Your task to perform on an android device: open chrome and create a bookmark for the current page Image 0: 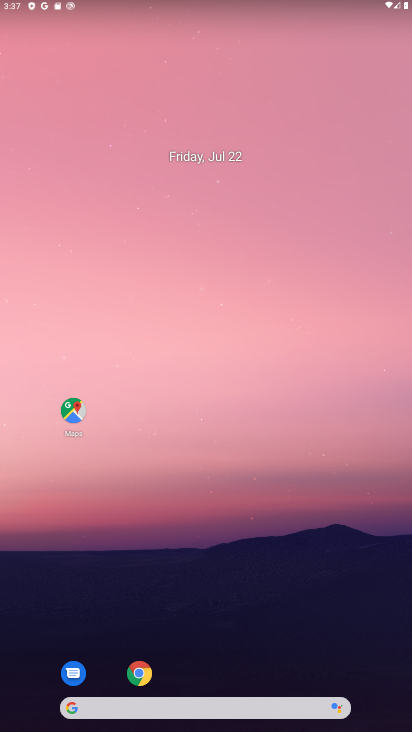
Step 0: click (139, 672)
Your task to perform on an android device: open chrome and create a bookmark for the current page Image 1: 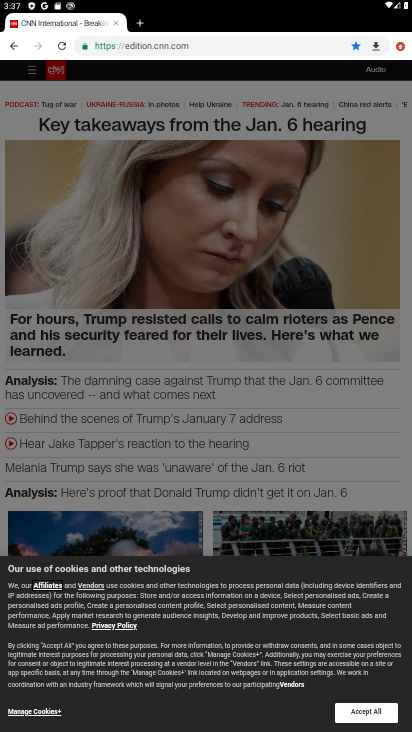
Step 1: click (403, 44)
Your task to perform on an android device: open chrome and create a bookmark for the current page Image 2: 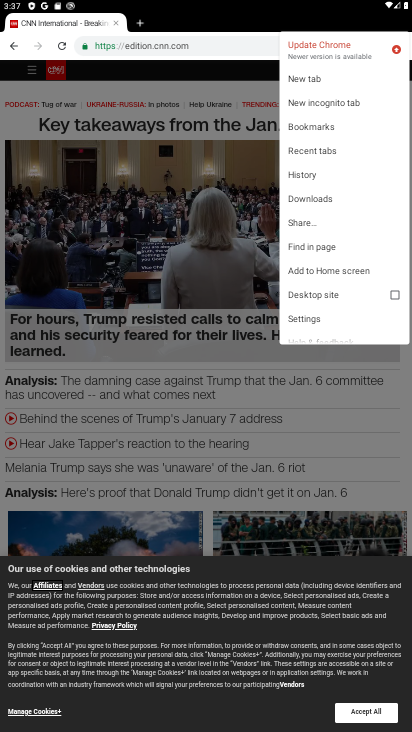
Step 2: click (258, 151)
Your task to perform on an android device: open chrome and create a bookmark for the current page Image 3: 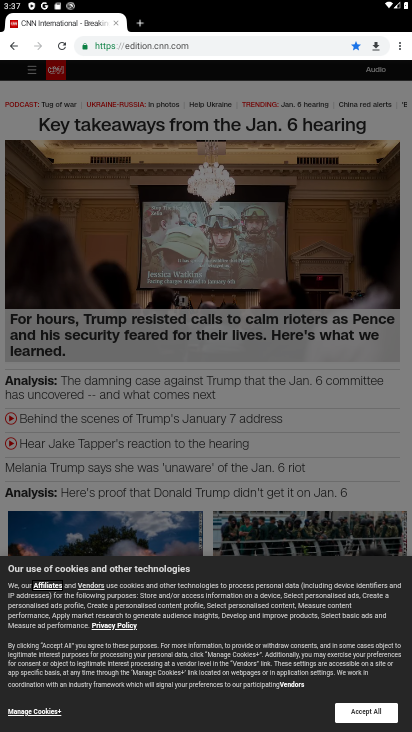
Step 3: task complete